Your task to perform on an android device: change the clock display to analog Image 0: 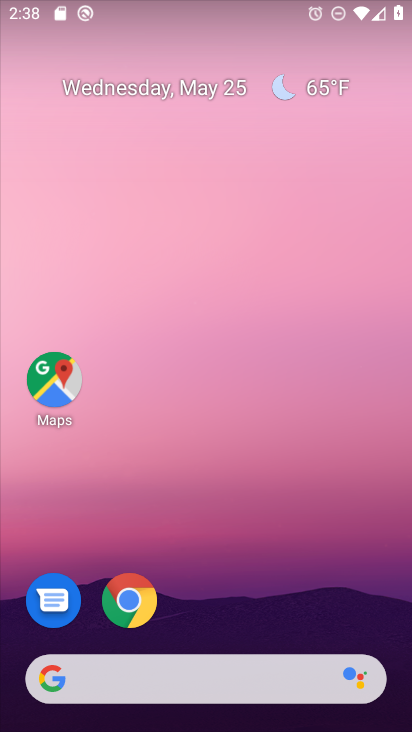
Step 0: drag from (232, 496) to (193, 152)
Your task to perform on an android device: change the clock display to analog Image 1: 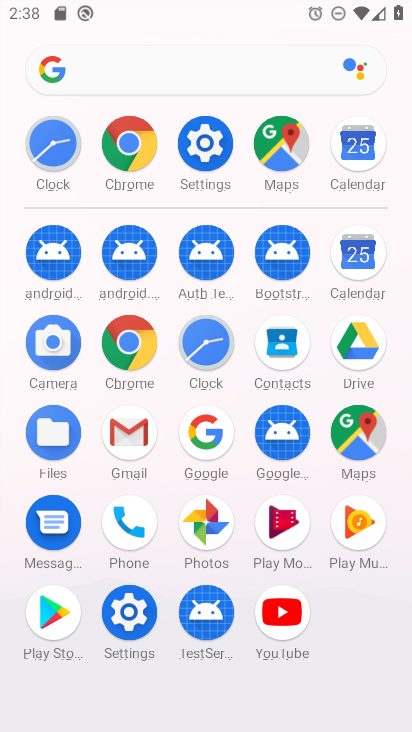
Step 1: click (218, 349)
Your task to perform on an android device: change the clock display to analog Image 2: 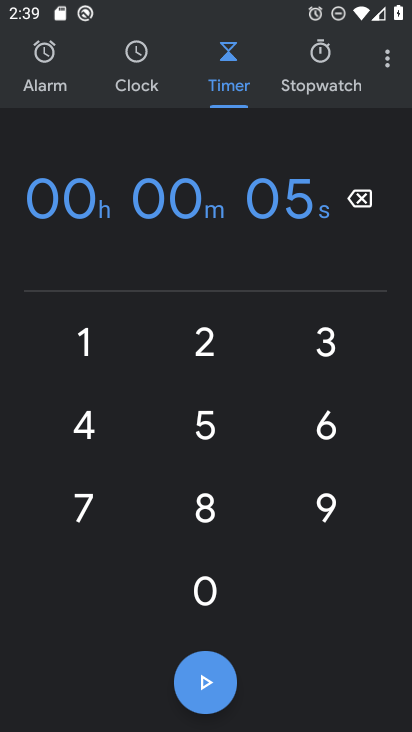
Step 2: click (383, 61)
Your task to perform on an android device: change the clock display to analog Image 3: 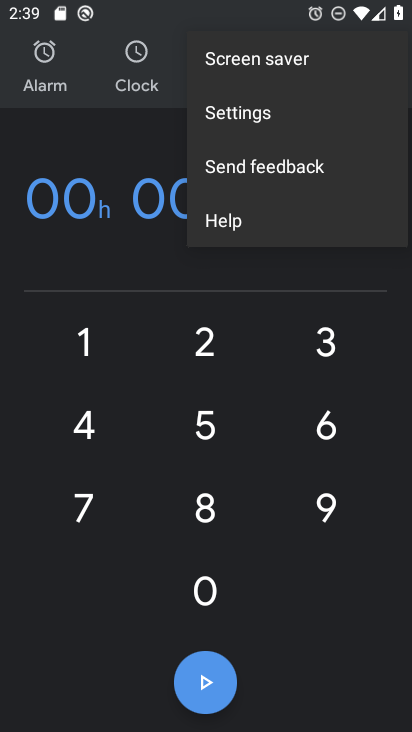
Step 3: click (265, 110)
Your task to perform on an android device: change the clock display to analog Image 4: 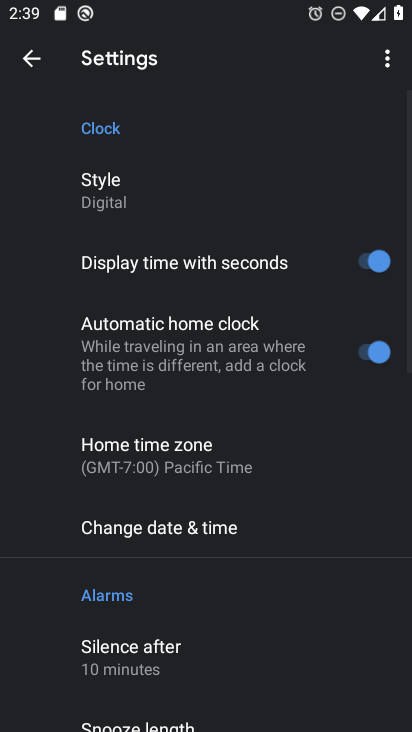
Step 4: click (117, 187)
Your task to perform on an android device: change the clock display to analog Image 5: 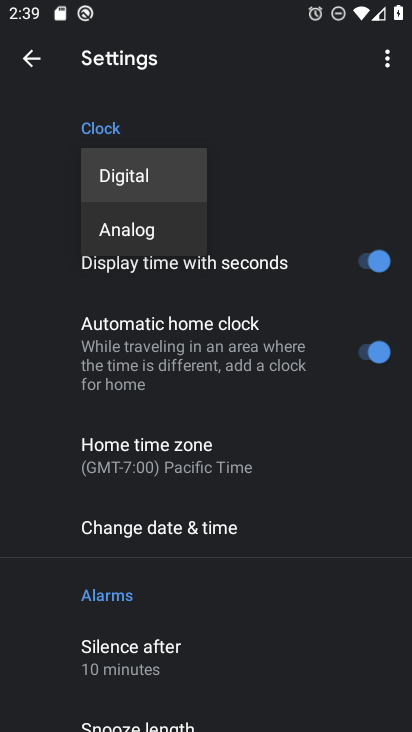
Step 5: click (115, 235)
Your task to perform on an android device: change the clock display to analog Image 6: 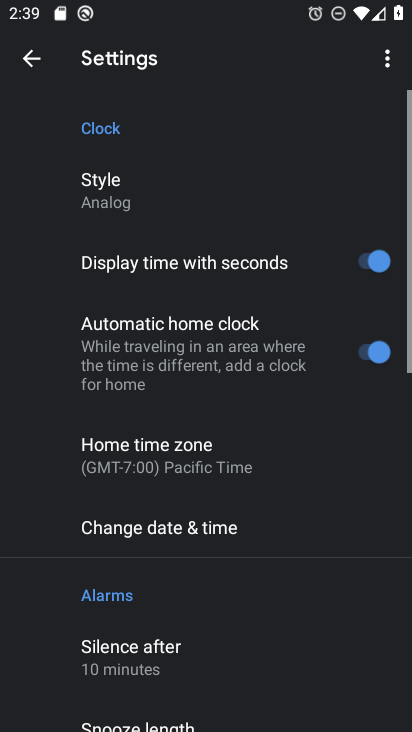
Step 6: task complete